Your task to perform on an android device: Search for Italian restaurants on Maps Image 0: 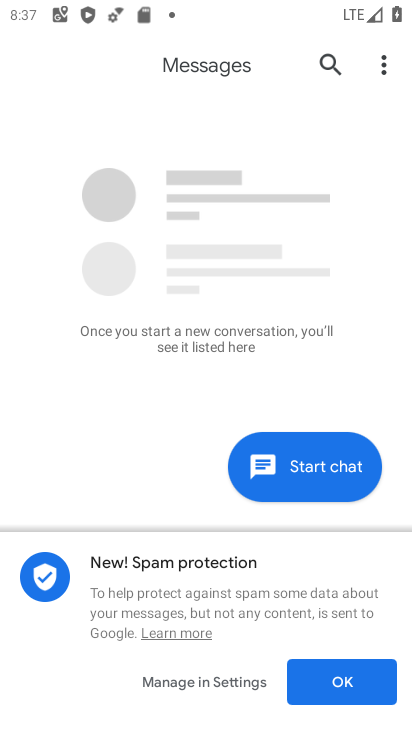
Step 0: press back button
Your task to perform on an android device: Search for Italian restaurants on Maps Image 1: 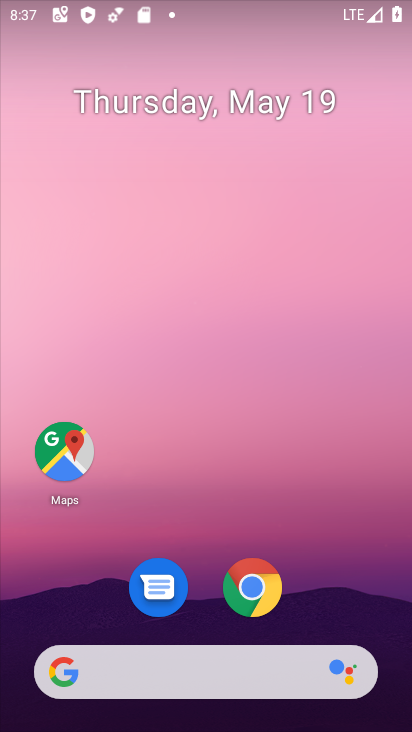
Step 1: drag from (338, 600) to (298, 27)
Your task to perform on an android device: Search for Italian restaurants on Maps Image 2: 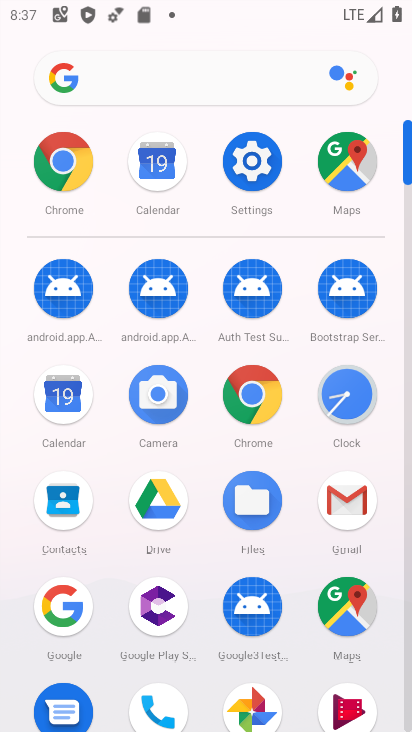
Step 2: click (343, 603)
Your task to perform on an android device: Search for Italian restaurants on Maps Image 3: 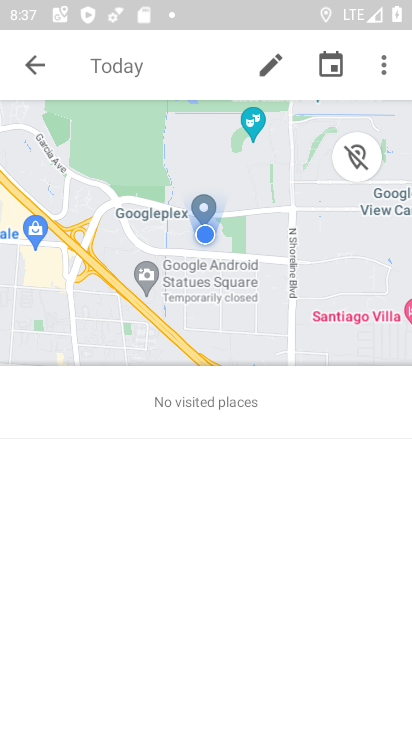
Step 3: click (25, 59)
Your task to perform on an android device: Search for Italian restaurants on Maps Image 4: 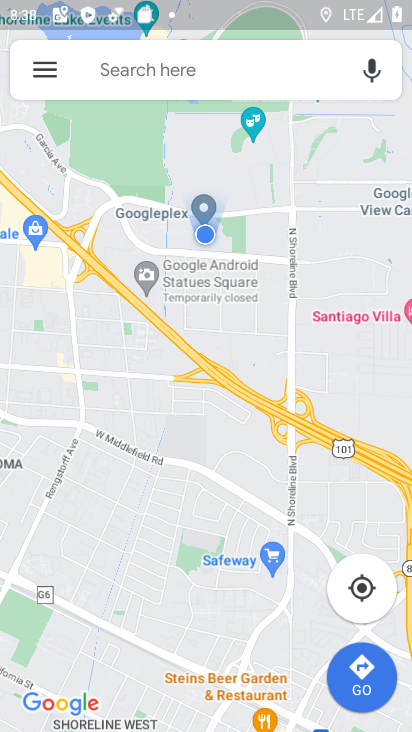
Step 4: click (207, 67)
Your task to perform on an android device: Search for Italian restaurants on Maps Image 5: 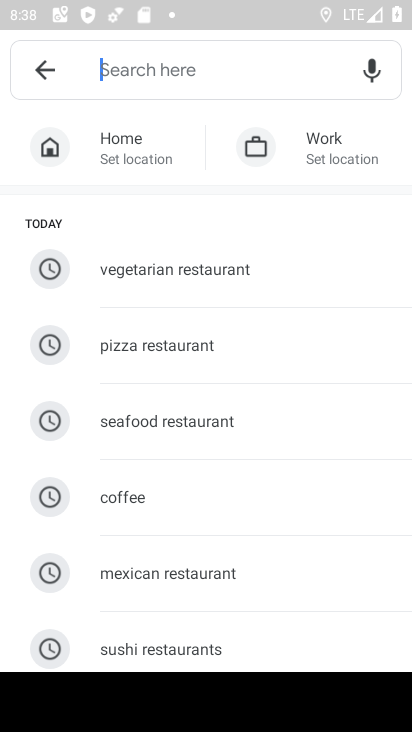
Step 5: drag from (212, 575) to (242, 302)
Your task to perform on an android device: Search for Italian restaurants on Maps Image 6: 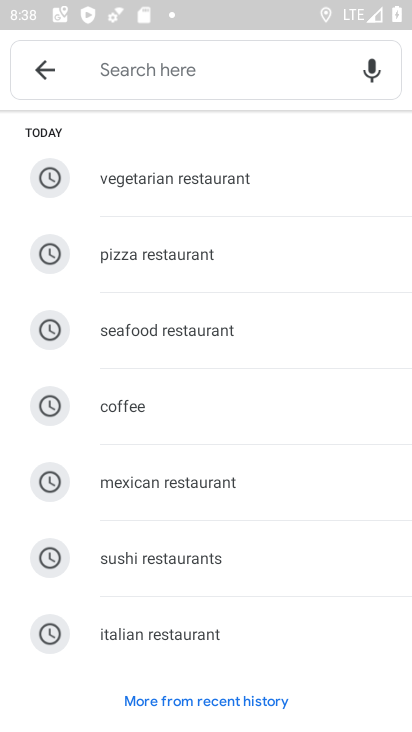
Step 6: click (177, 629)
Your task to perform on an android device: Search for Italian restaurants on Maps Image 7: 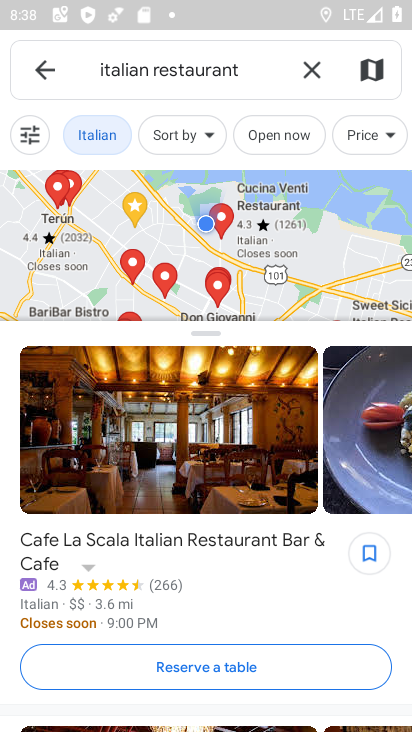
Step 7: task complete